Your task to perform on an android device: Search for pizza restaurants on Maps Image 0: 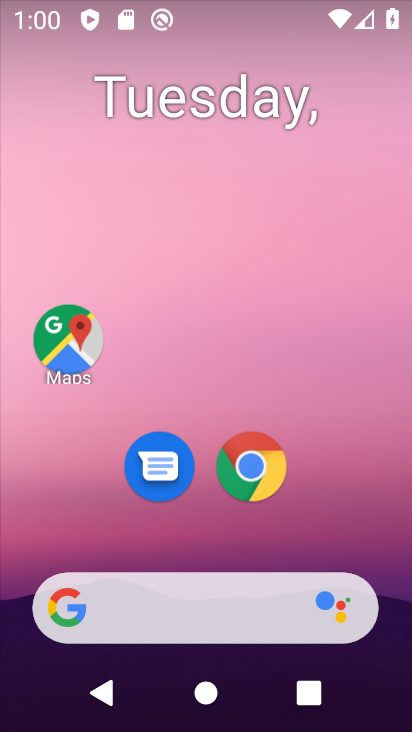
Step 0: click (256, 460)
Your task to perform on an android device: Search for pizza restaurants on Maps Image 1: 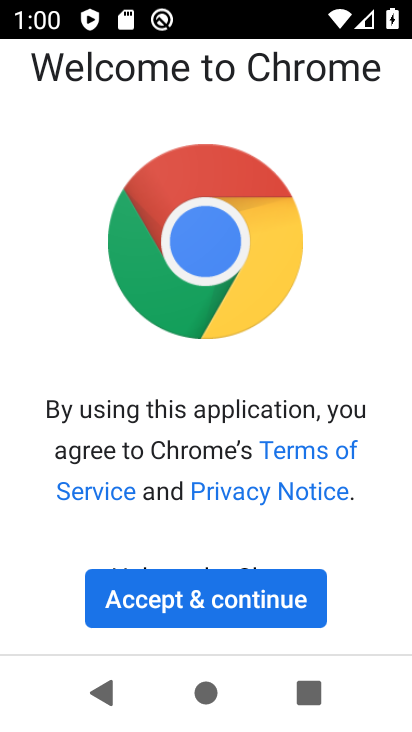
Step 1: click (231, 608)
Your task to perform on an android device: Search for pizza restaurants on Maps Image 2: 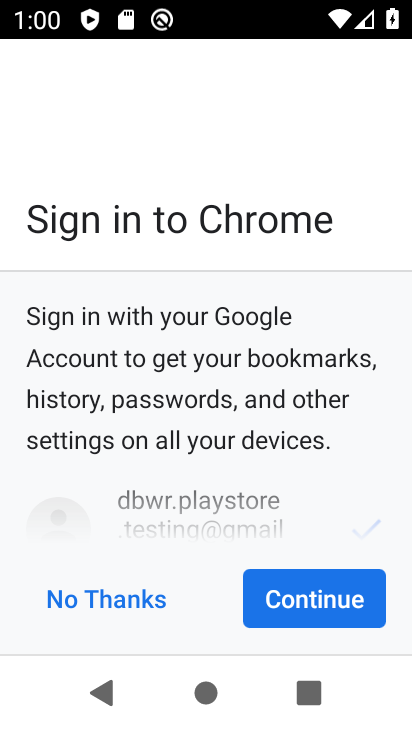
Step 2: click (351, 600)
Your task to perform on an android device: Search for pizza restaurants on Maps Image 3: 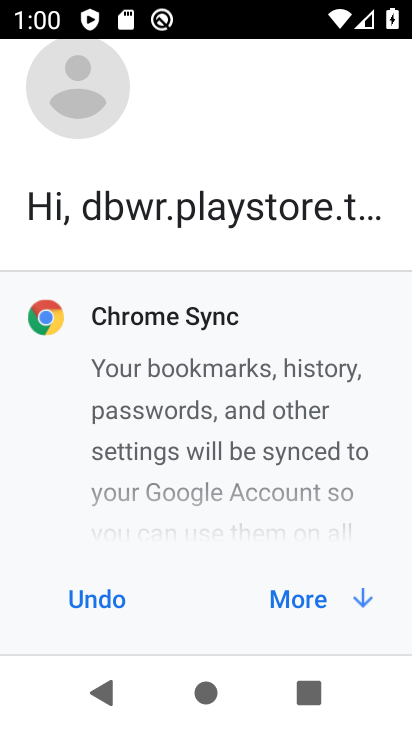
Step 3: click (351, 600)
Your task to perform on an android device: Search for pizza restaurants on Maps Image 4: 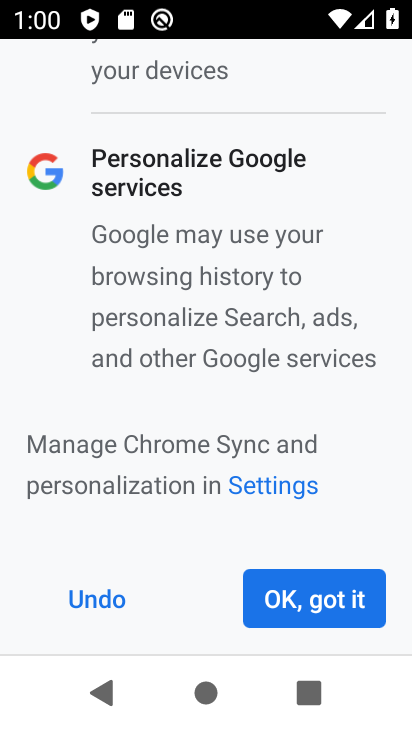
Step 4: click (351, 600)
Your task to perform on an android device: Search for pizza restaurants on Maps Image 5: 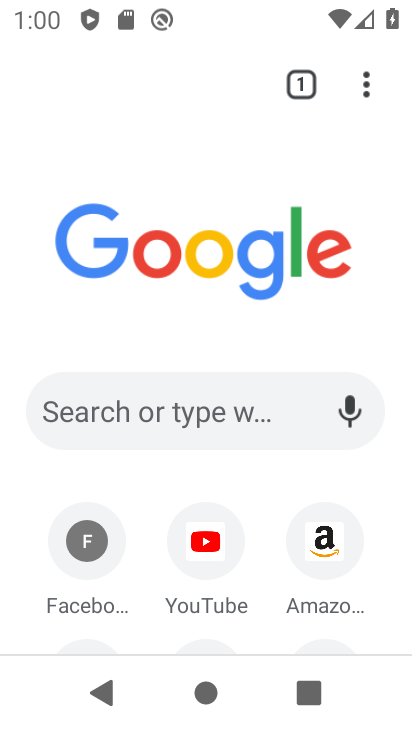
Step 5: click (182, 428)
Your task to perform on an android device: Search for pizza restaurants on Maps Image 6: 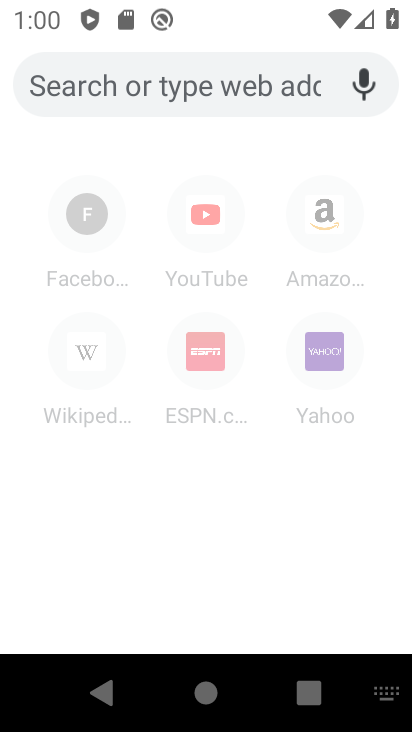
Step 6: press home button
Your task to perform on an android device: Search for pizza restaurants on Maps Image 7: 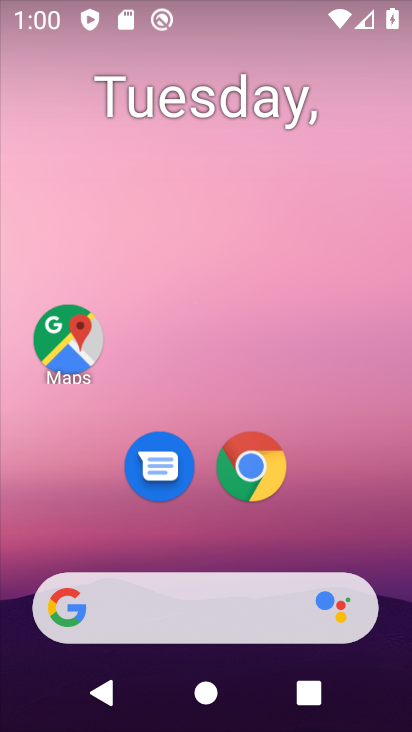
Step 7: click (63, 348)
Your task to perform on an android device: Search for pizza restaurants on Maps Image 8: 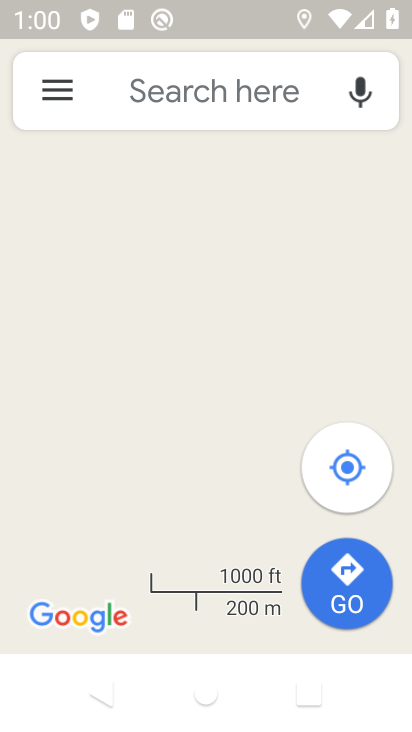
Step 8: click (213, 102)
Your task to perform on an android device: Search for pizza restaurants on Maps Image 9: 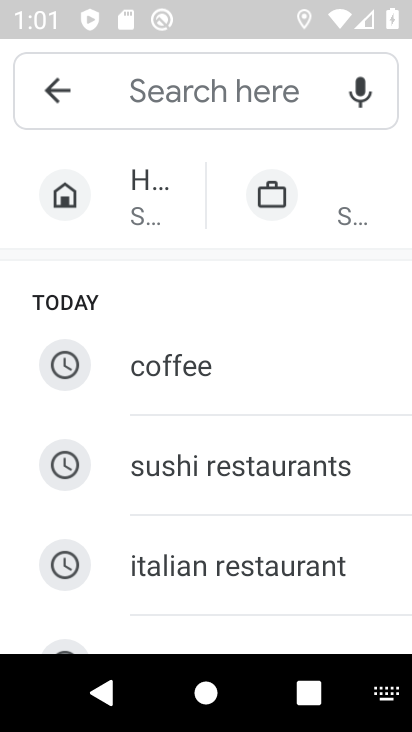
Step 9: type "pizza restaurants"
Your task to perform on an android device: Search for pizza restaurants on Maps Image 10: 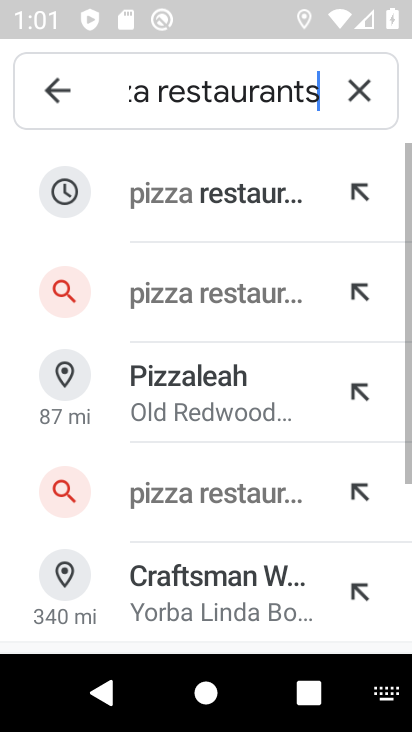
Step 10: click (198, 188)
Your task to perform on an android device: Search for pizza restaurants on Maps Image 11: 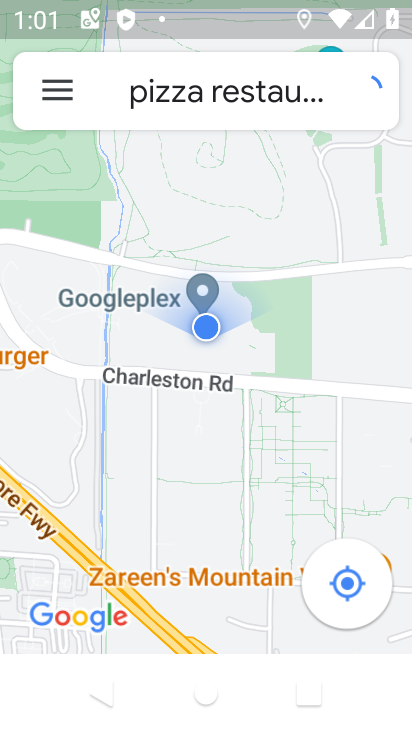
Step 11: task complete